Your task to perform on an android device: Open the calendar app, open the side menu, and click the "Day" option Image 0: 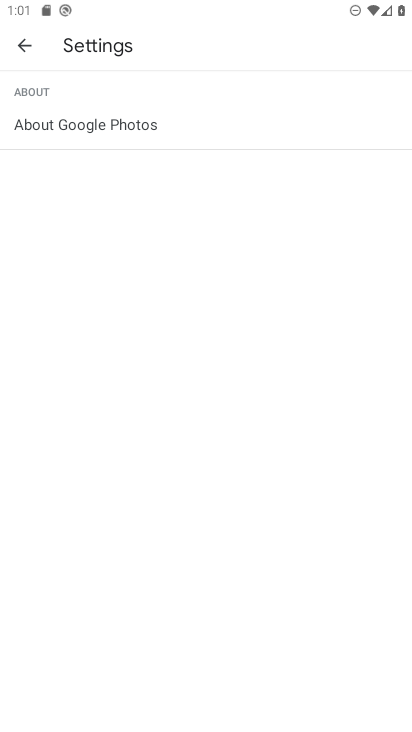
Step 0: press home button
Your task to perform on an android device: Open the calendar app, open the side menu, and click the "Day" option Image 1: 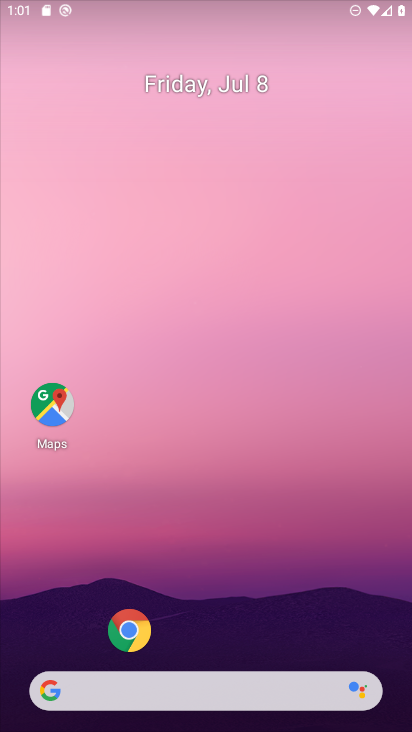
Step 1: drag from (178, 689) to (161, 72)
Your task to perform on an android device: Open the calendar app, open the side menu, and click the "Day" option Image 2: 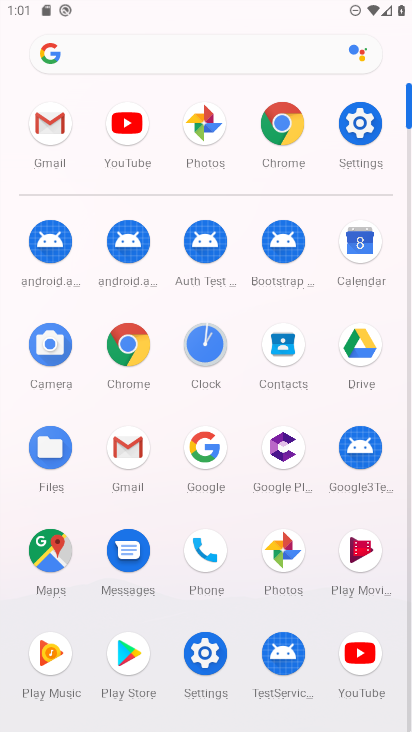
Step 2: click (368, 252)
Your task to perform on an android device: Open the calendar app, open the side menu, and click the "Day" option Image 3: 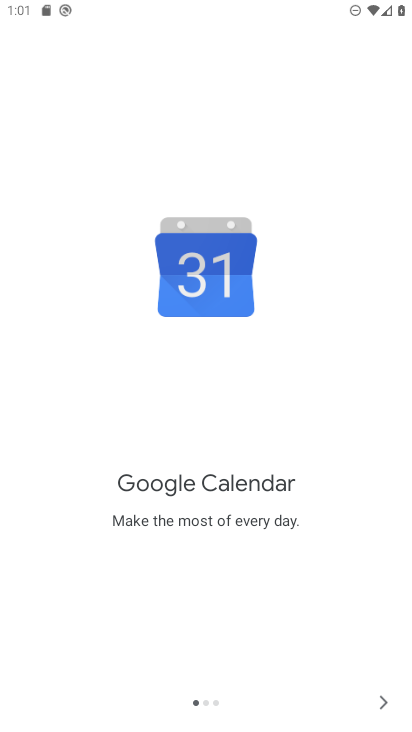
Step 3: click (378, 695)
Your task to perform on an android device: Open the calendar app, open the side menu, and click the "Day" option Image 4: 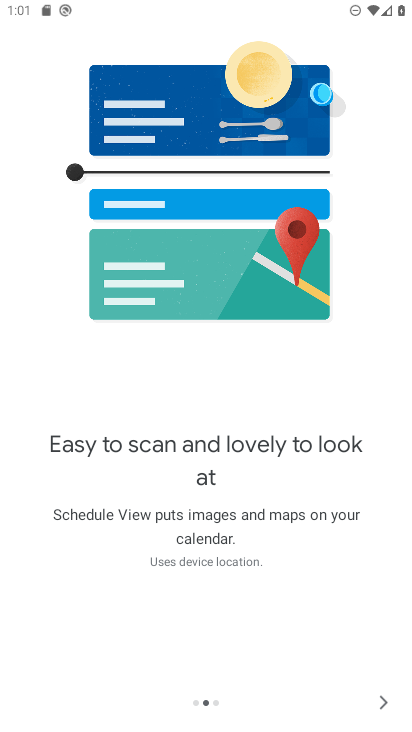
Step 4: click (378, 695)
Your task to perform on an android device: Open the calendar app, open the side menu, and click the "Day" option Image 5: 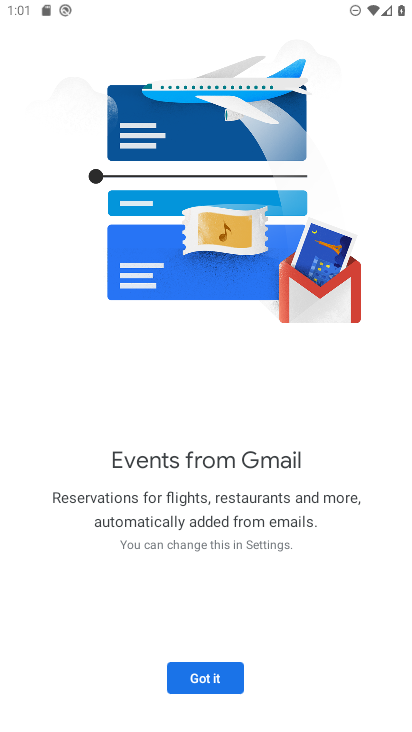
Step 5: click (223, 677)
Your task to perform on an android device: Open the calendar app, open the side menu, and click the "Day" option Image 6: 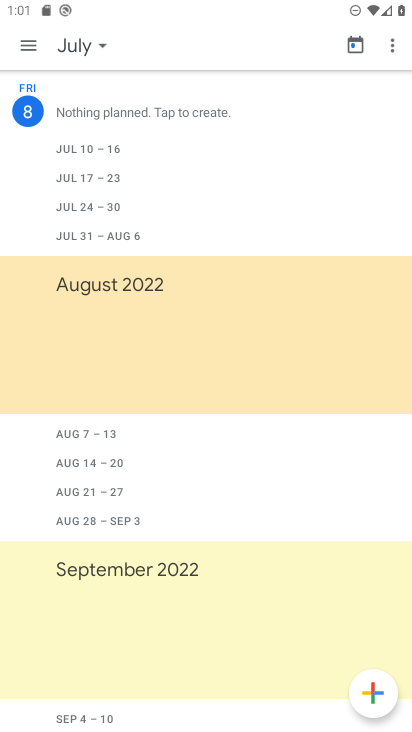
Step 6: click (96, 48)
Your task to perform on an android device: Open the calendar app, open the side menu, and click the "Day" option Image 7: 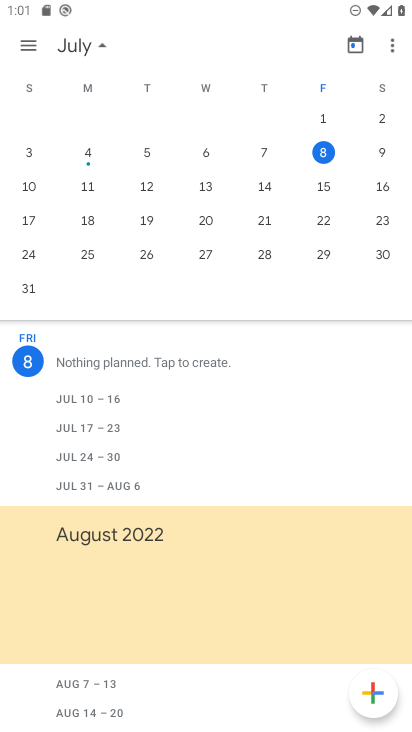
Step 7: click (34, 39)
Your task to perform on an android device: Open the calendar app, open the side menu, and click the "Day" option Image 8: 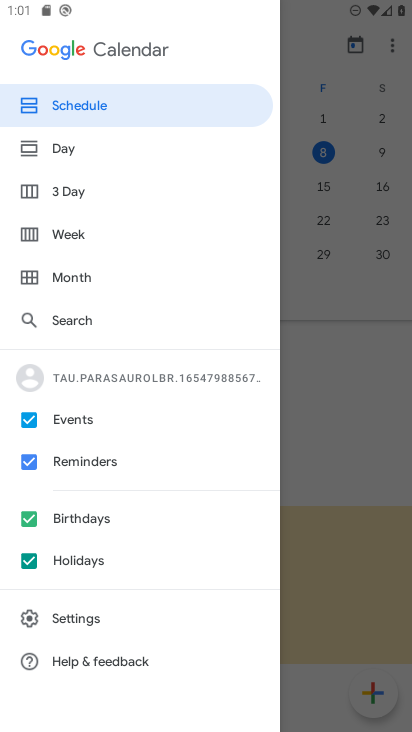
Step 8: click (92, 139)
Your task to perform on an android device: Open the calendar app, open the side menu, and click the "Day" option Image 9: 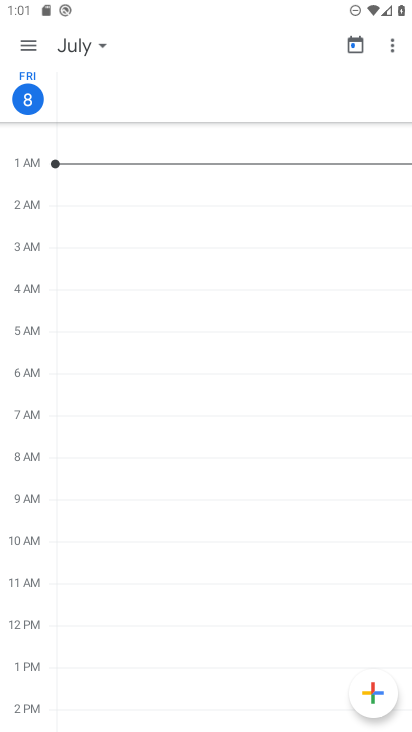
Step 9: task complete